Your task to perform on an android device: Open ESPN.com Image 0: 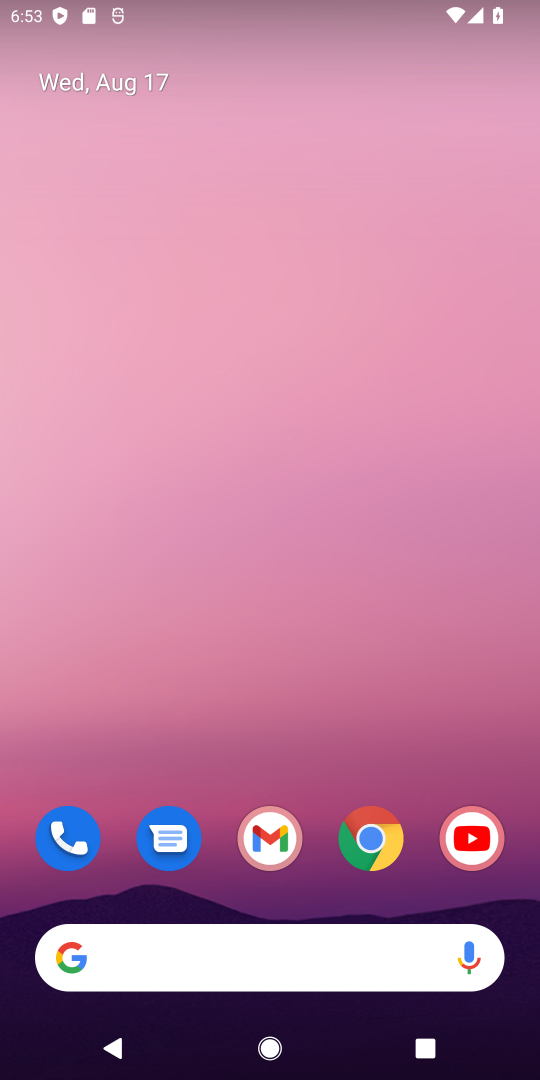
Step 0: drag from (348, 960) to (330, 281)
Your task to perform on an android device: Open ESPN.com Image 1: 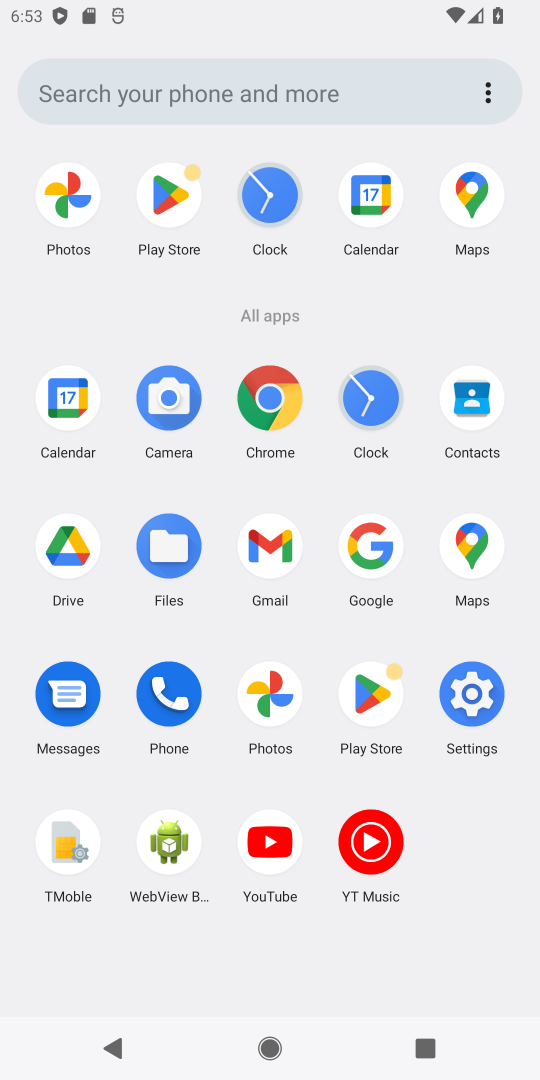
Step 1: click (295, 426)
Your task to perform on an android device: Open ESPN.com Image 2: 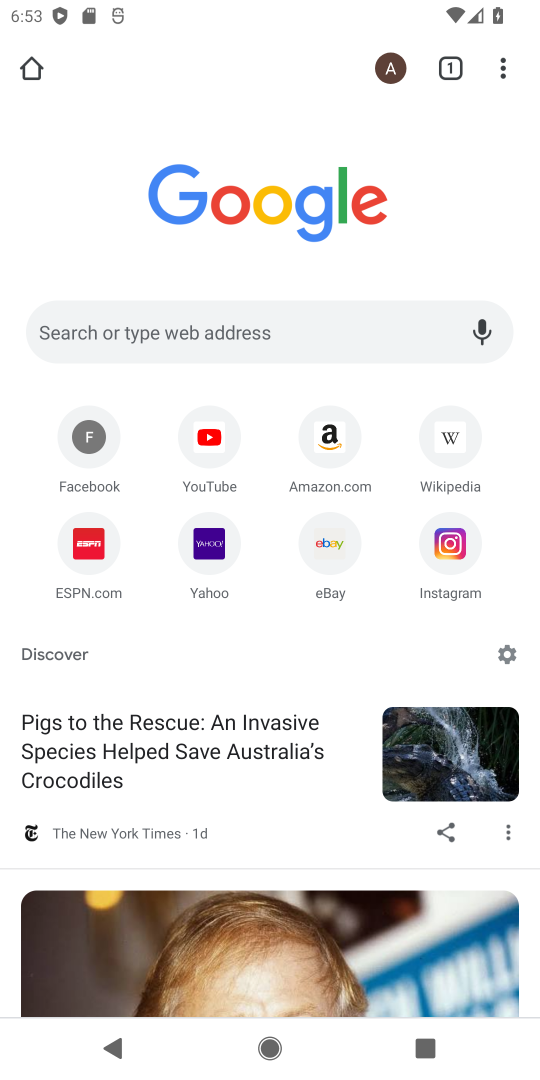
Step 2: click (110, 542)
Your task to perform on an android device: Open ESPN.com Image 3: 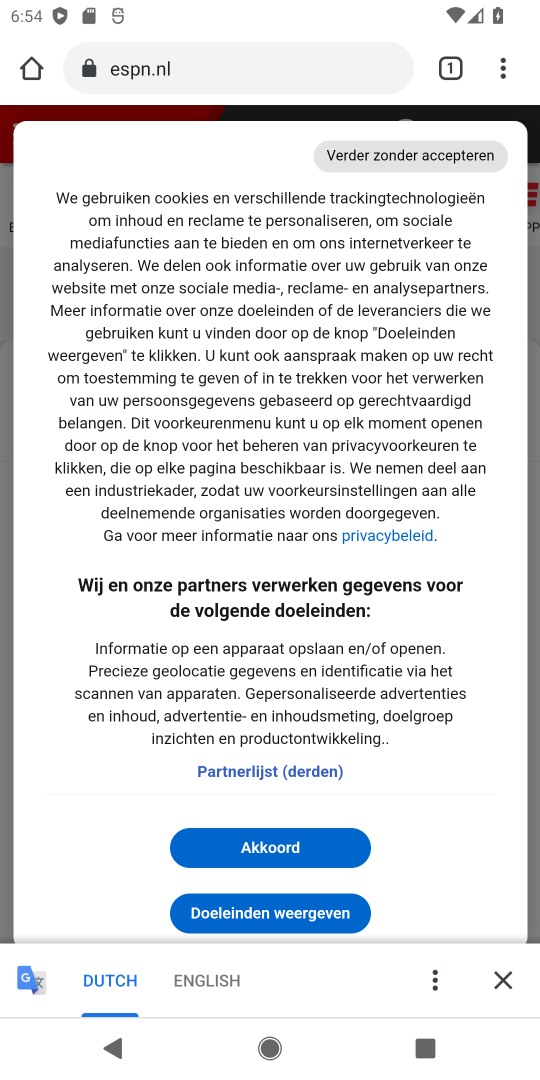
Step 3: task complete